Your task to perform on an android device: Check the news Image 0: 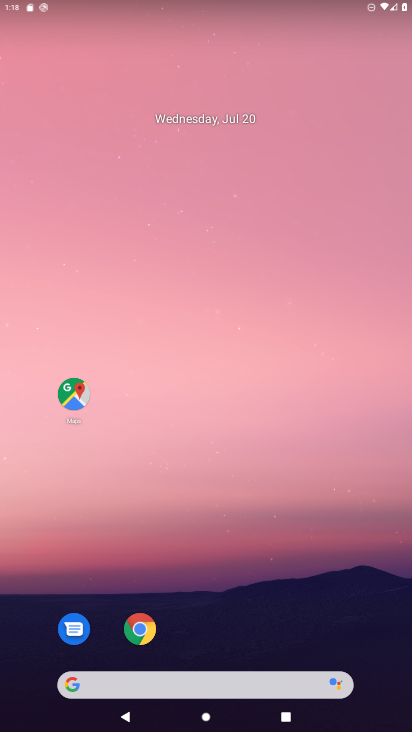
Step 0: drag from (179, 592) to (149, 180)
Your task to perform on an android device: Check the news Image 1: 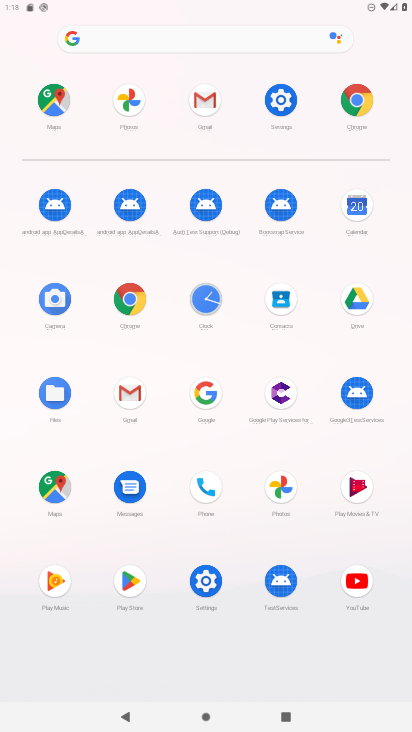
Step 1: click (200, 396)
Your task to perform on an android device: Check the news Image 2: 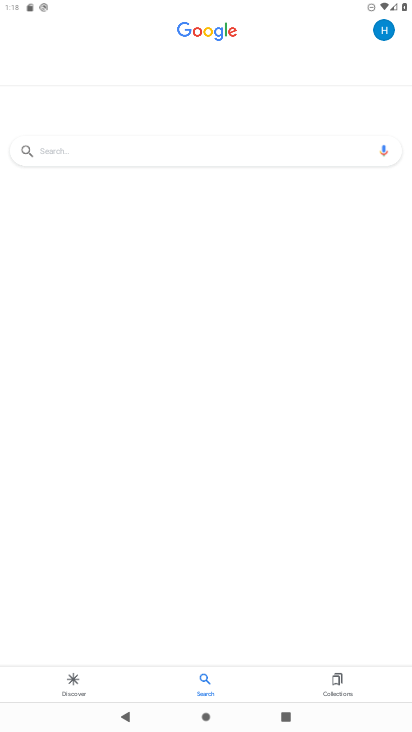
Step 2: click (125, 143)
Your task to perform on an android device: Check the news Image 3: 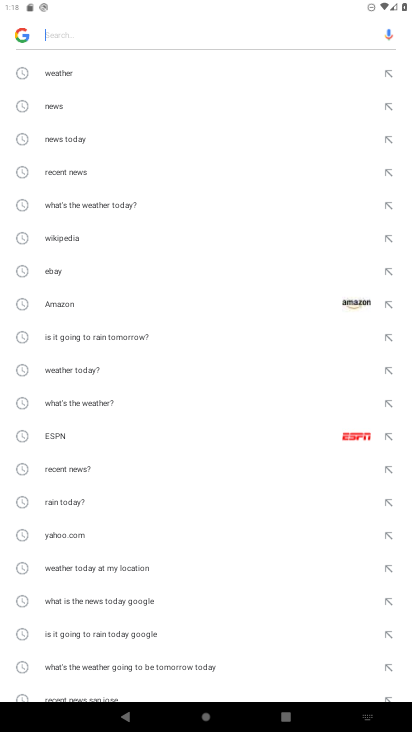
Step 3: click (54, 101)
Your task to perform on an android device: Check the news Image 4: 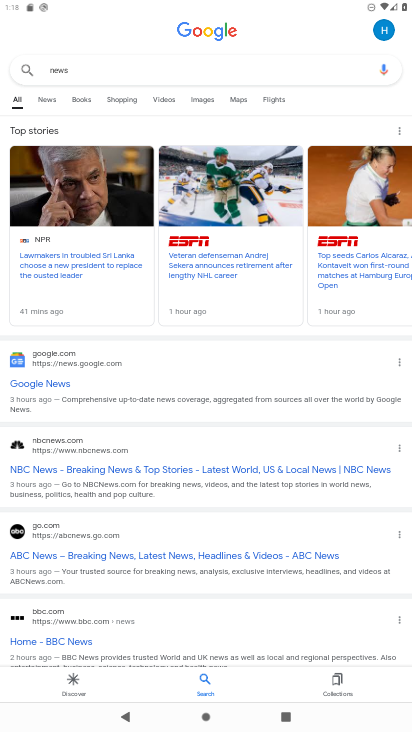
Step 4: task complete